Your task to perform on an android device: toggle translation in the chrome app Image 0: 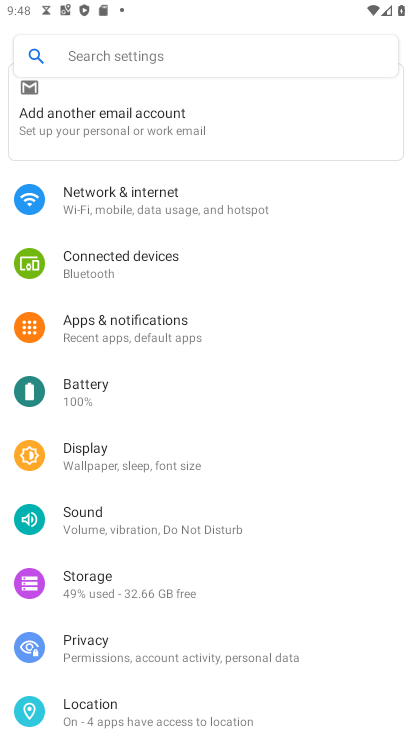
Step 0: press home button
Your task to perform on an android device: toggle translation in the chrome app Image 1: 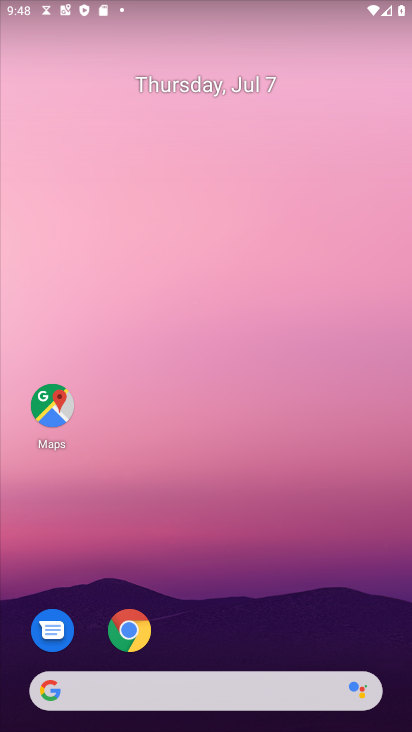
Step 1: click (133, 632)
Your task to perform on an android device: toggle translation in the chrome app Image 2: 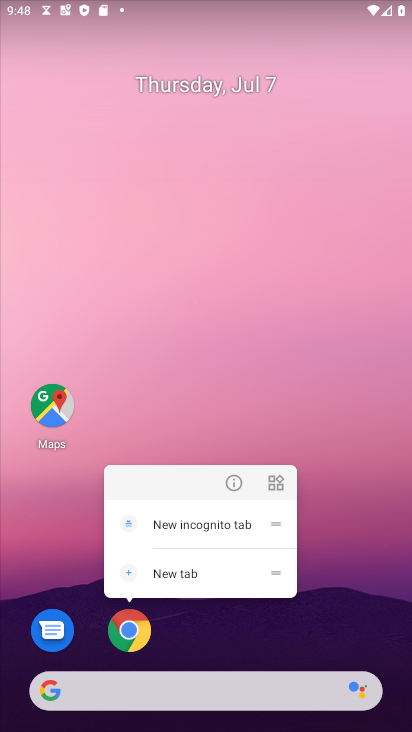
Step 2: click (118, 627)
Your task to perform on an android device: toggle translation in the chrome app Image 3: 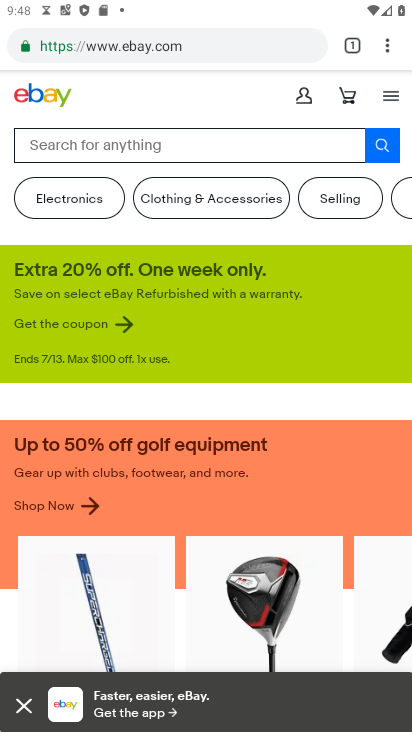
Step 3: click (386, 47)
Your task to perform on an android device: toggle translation in the chrome app Image 4: 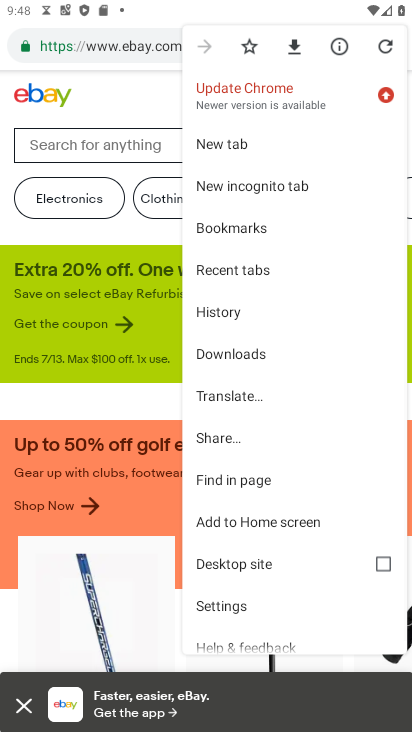
Step 4: click (233, 606)
Your task to perform on an android device: toggle translation in the chrome app Image 5: 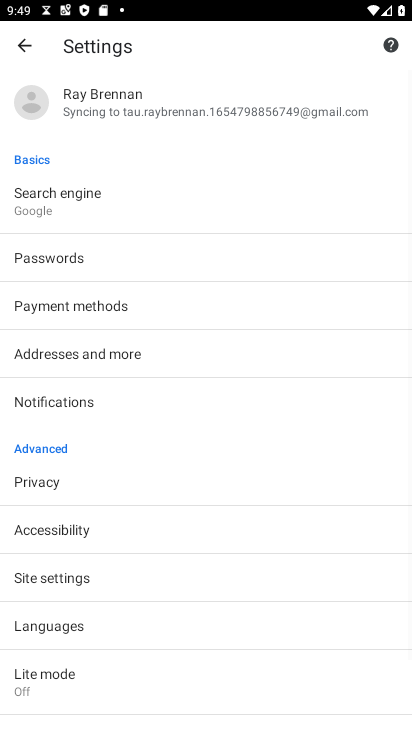
Step 5: drag from (100, 698) to (88, 332)
Your task to perform on an android device: toggle translation in the chrome app Image 6: 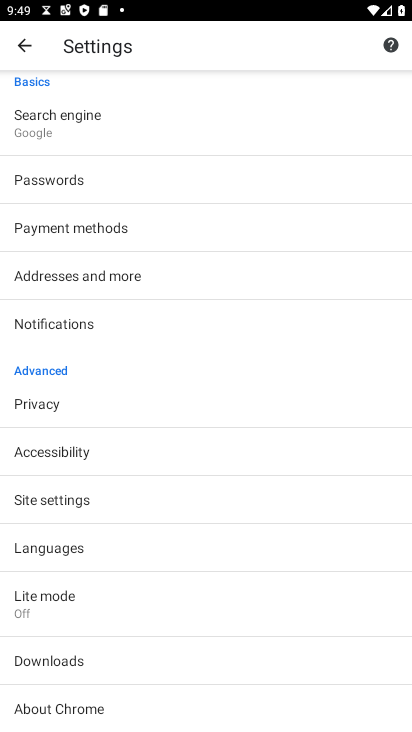
Step 6: click (36, 548)
Your task to perform on an android device: toggle translation in the chrome app Image 7: 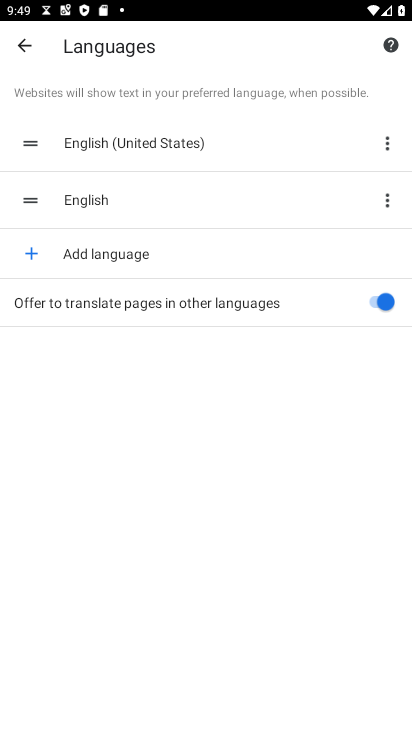
Step 7: click (379, 301)
Your task to perform on an android device: toggle translation in the chrome app Image 8: 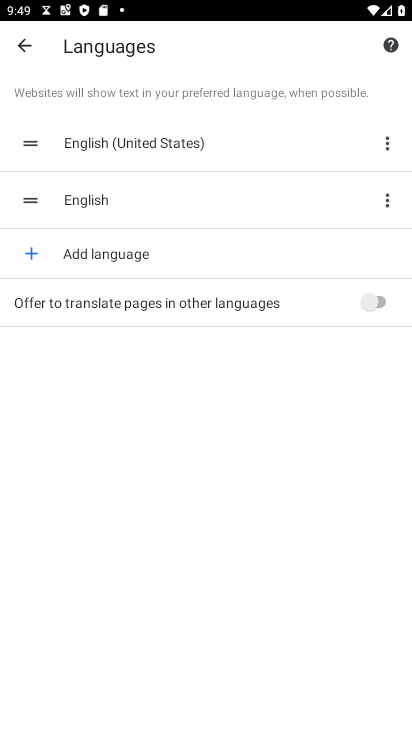
Step 8: task complete